Your task to perform on an android device: Open Google Chrome and click the shortcut for Amazon.com Image 0: 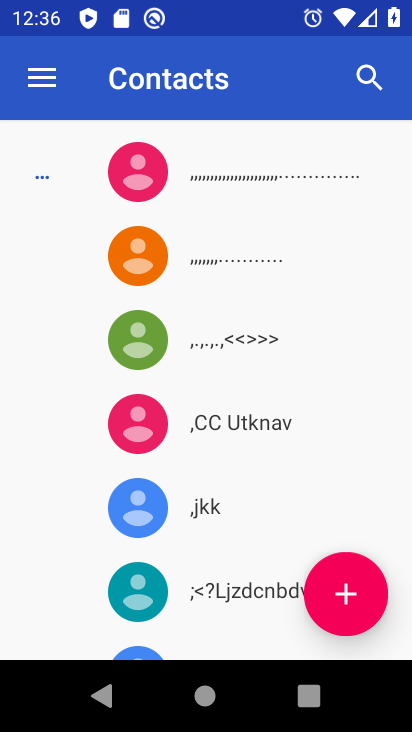
Step 0: press home button
Your task to perform on an android device: Open Google Chrome and click the shortcut for Amazon.com Image 1: 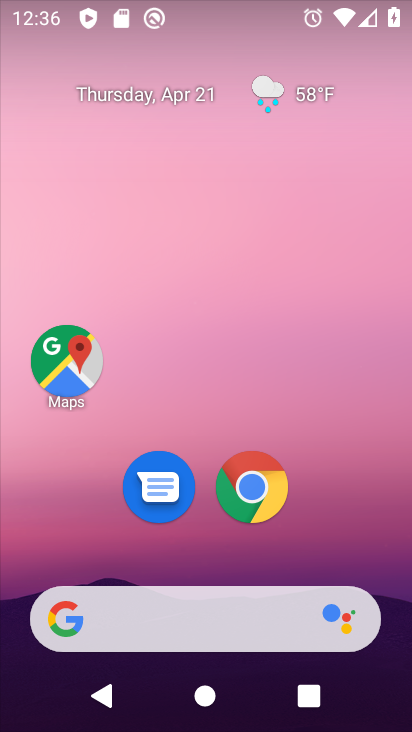
Step 1: click (253, 491)
Your task to perform on an android device: Open Google Chrome and click the shortcut for Amazon.com Image 2: 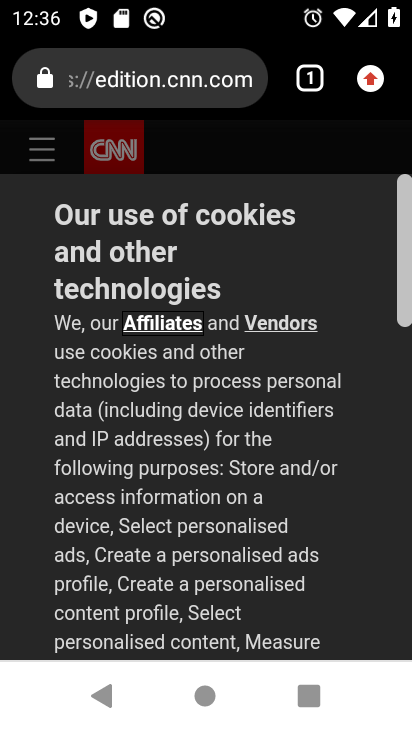
Step 2: click (365, 81)
Your task to perform on an android device: Open Google Chrome and click the shortcut for Amazon.com Image 3: 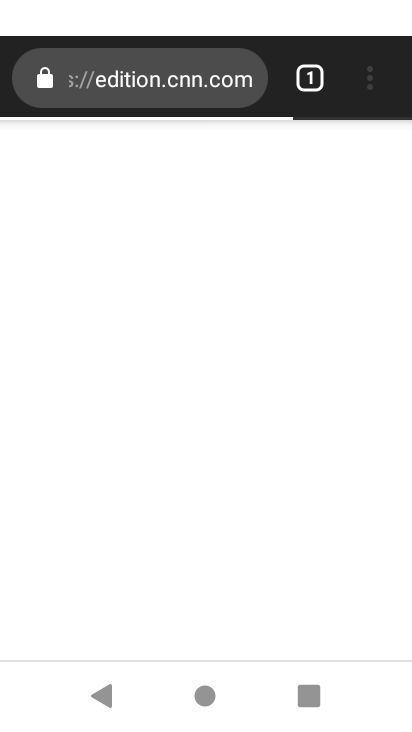
Step 3: click (372, 88)
Your task to perform on an android device: Open Google Chrome and click the shortcut for Amazon.com Image 4: 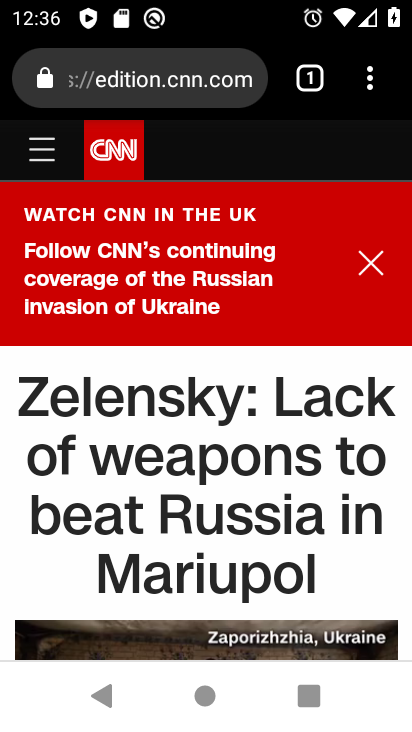
Step 4: click (376, 77)
Your task to perform on an android device: Open Google Chrome and click the shortcut for Amazon.com Image 5: 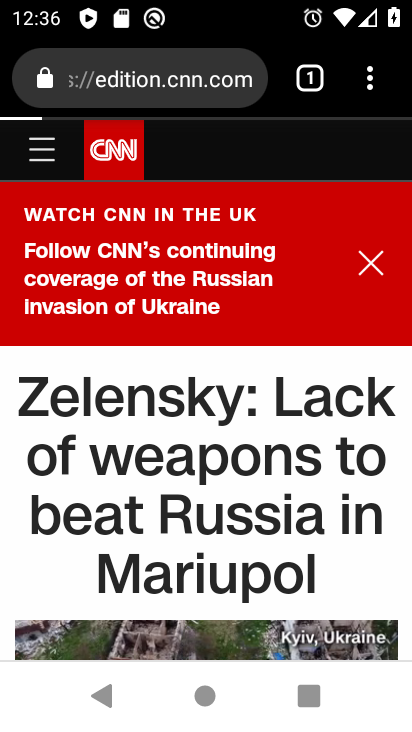
Step 5: click (374, 84)
Your task to perform on an android device: Open Google Chrome and click the shortcut for Amazon.com Image 6: 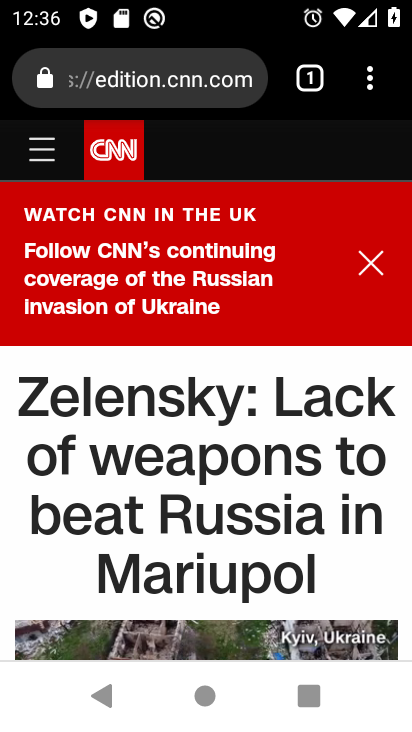
Step 6: drag from (366, 85) to (87, 245)
Your task to perform on an android device: Open Google Chrome and click the shortcut for Amazon.com Image 7: 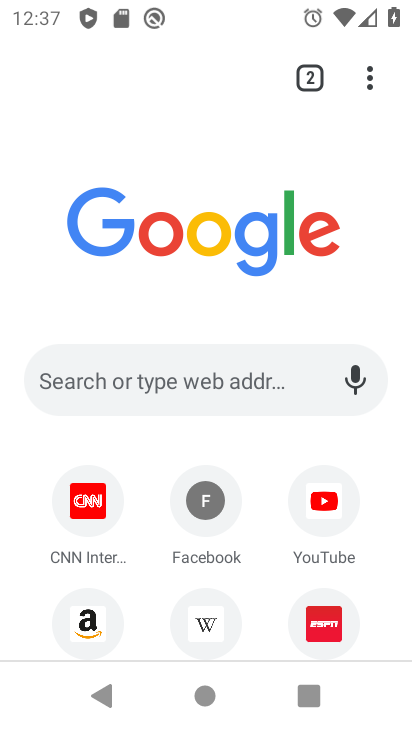
Step 7: click (85, 615)
Your task to perform on an android device: Open Google Chrome and click the shortcut for Amazon.com Image 8: 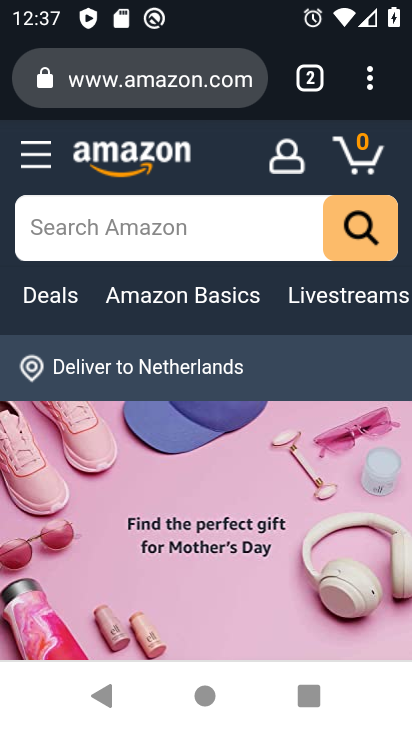
Step 8: task complete